Your task to perform on an android device: turn off smart reply in the gmail app Image 0: 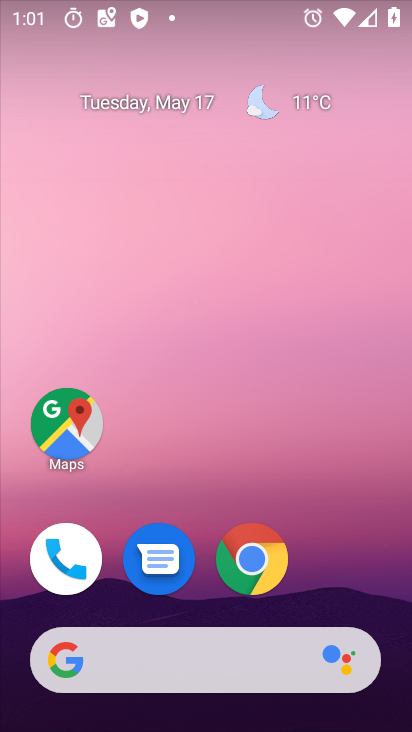
Step 0: drag from (381, 576) to (325, 160)
Your task to perform on an android device: turn off smart reply in the gmail app Image 1: 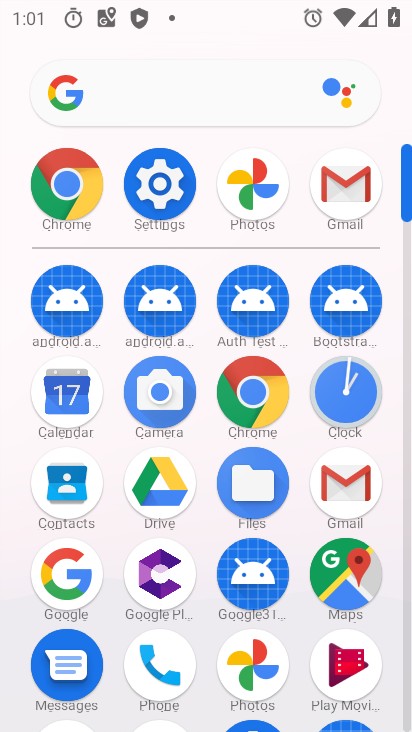
Step 1: click (331, 186)
Your task to perform on an android device: turn off smart reply in the gmail app Image 2: 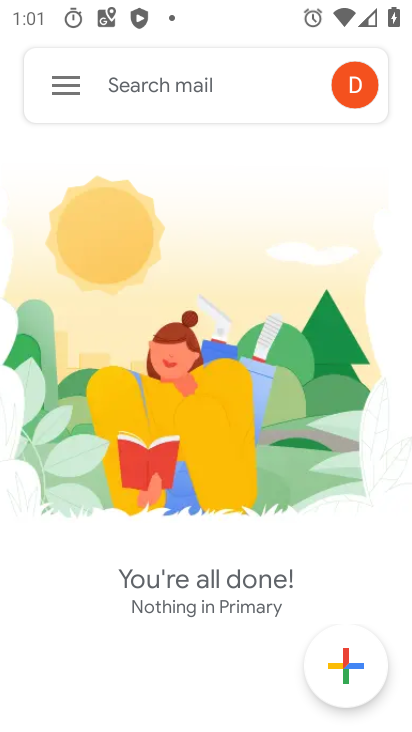
Step 2: click (52, 72)
Your task to perform on an android device: turn off smart reply in the gmail app Image 3: 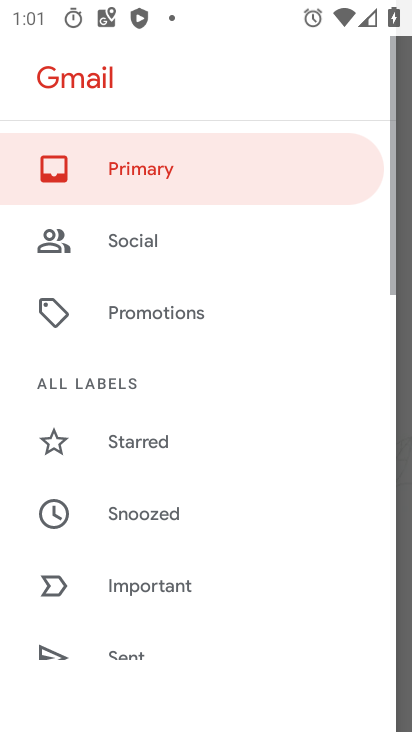
Step 3: drag from (67, 511) to (138, 70)
Your task to perform on an android device: turn off smart reply in the gmail app Image 4: 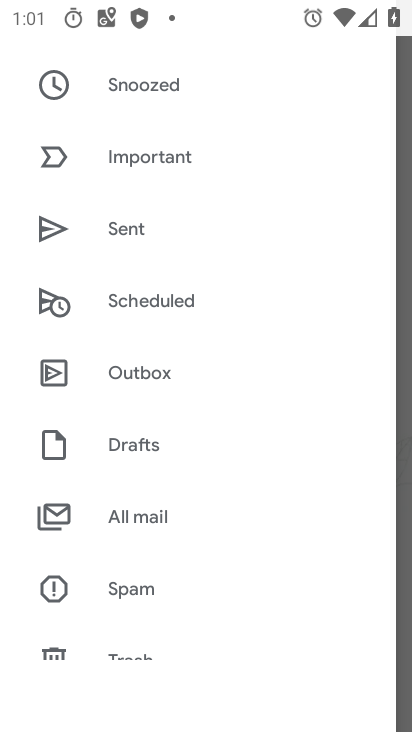
Step 4: drag from (85, 569) to (248, 165)
Your task to perform on an android device: turn off smart reply in the gmail app Image 5: 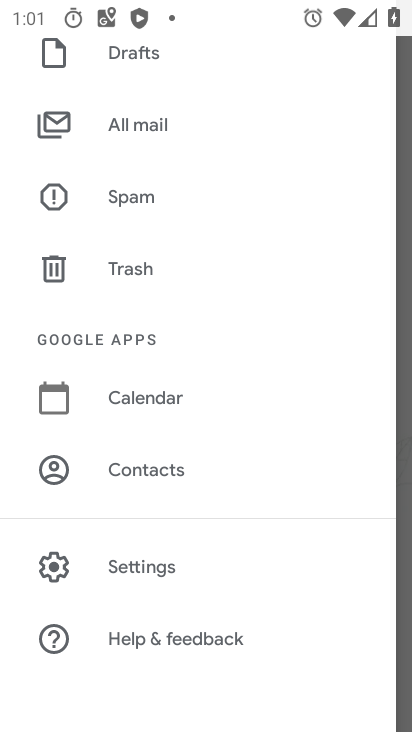
Step 5: click (166, 576)
Your task to perform on an android device: turn off smart reply in the gmail app Image 6: 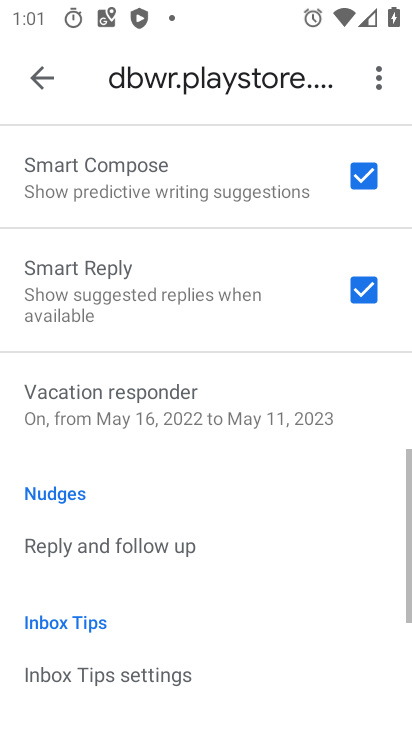
Step 6: drag from (183, 551) to (184, 691)
Your task to perform on an android device: turn off smart reply in the gmail app Image 7: 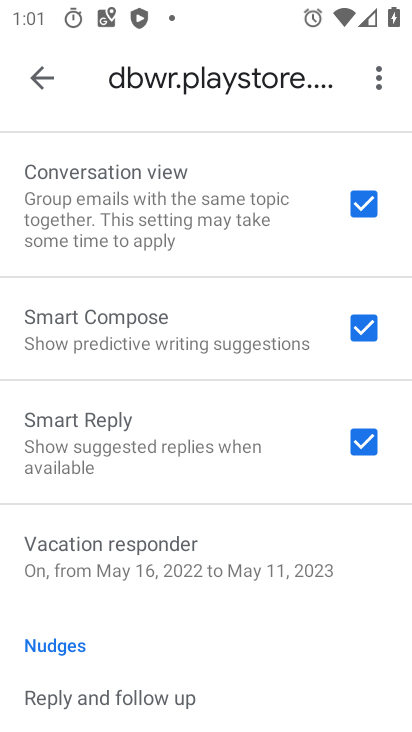
Step 7: drag from (246, 219) to (306, 147)
Your task to perform on an android device: turn off smart reply in the gmail app Image 8: 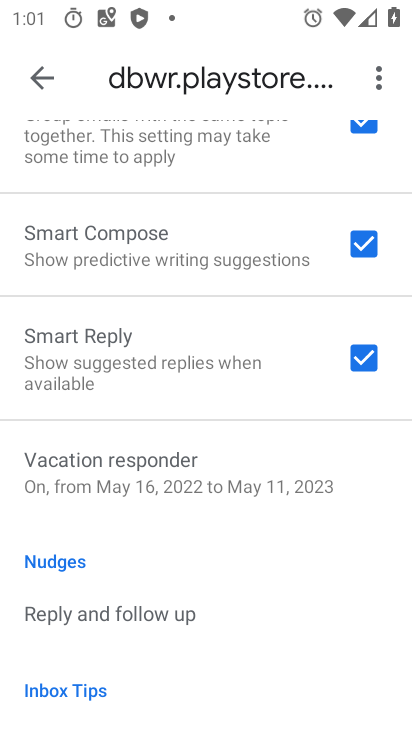
Step 8: drag from (199, 240) to (172, 371)
Your task to perform on an android device: turn off smart reply in the gmail app Image 9: 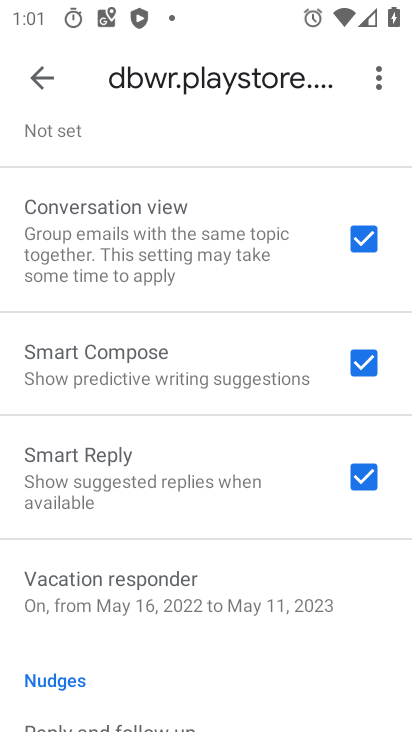
Step 9: click (360, 488)
Your task to perform on an android device: turn off smart reply in the gmail app Image 10: 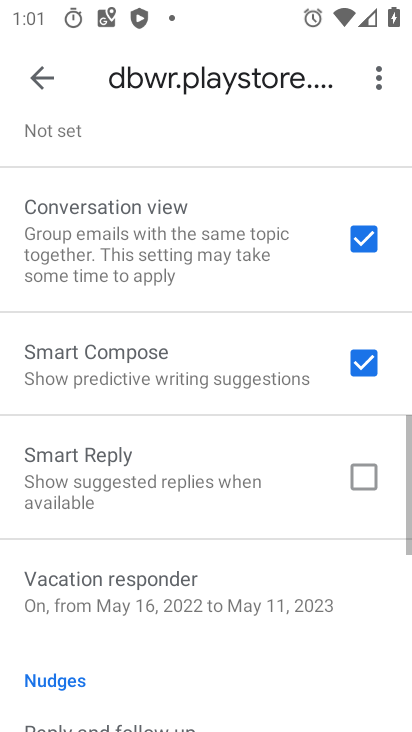
Step 10: task complete